Your task to perform on an android device: turn on the 24-hour format for clock Image 0: 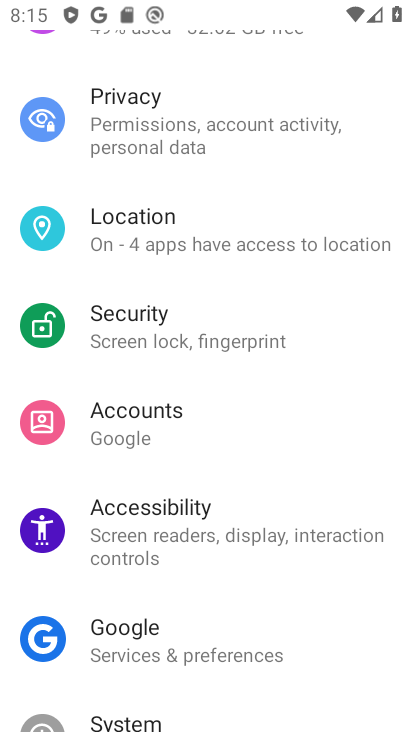
Step 0: press home button
Your task to perform on an android device: turn on the 24-hour format for clock Image 1: 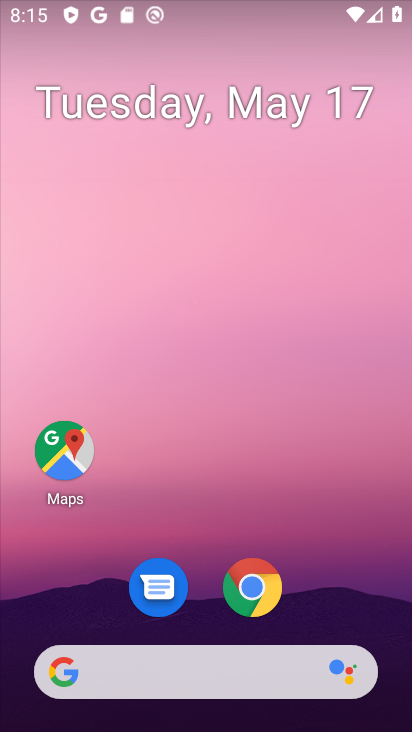
Step 1: drag from (69, 475) to (210, 147)
Your task to perform on an android device: turn on the 24-hour format for clock Image 2: 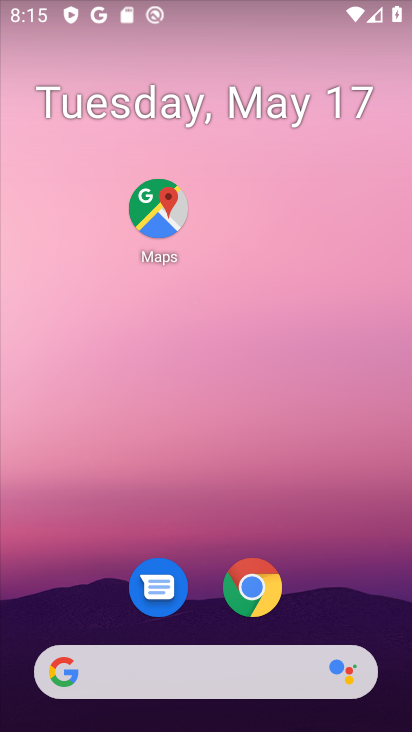
Step 2: drag from (69, 505) to (224, 209)
Your task to perform on an android device: turn on the 24-hour format for clock Image 3: 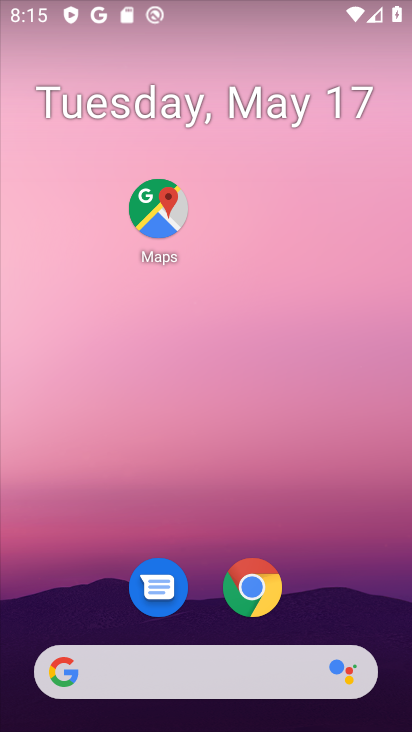
Step 3: drag from (86, 474) to (293, 37)
Your task to perform on an android device: turn on the 24-hour format for clock Image 4: 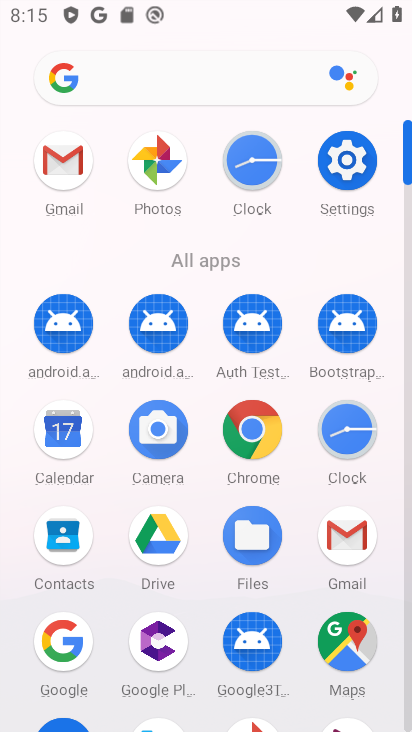
Step 4: click (364, 437)
Your task to perform on an android device: turn on the 24-hour format for clock Image 5: 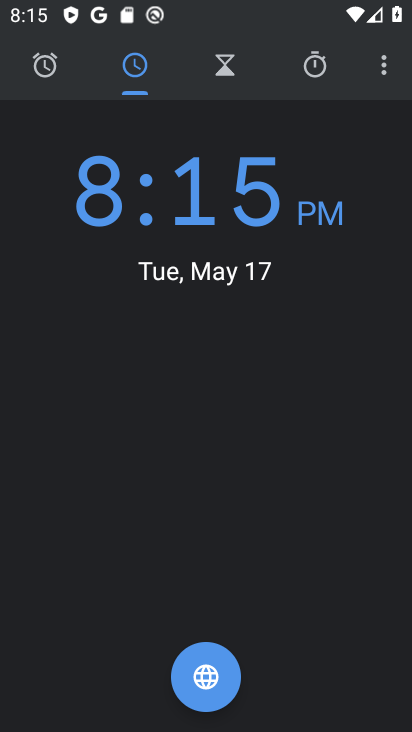
Step 5: click (377, 64)
Your task to perform on an android device: turn on the 24-hour format for clock Image 6: 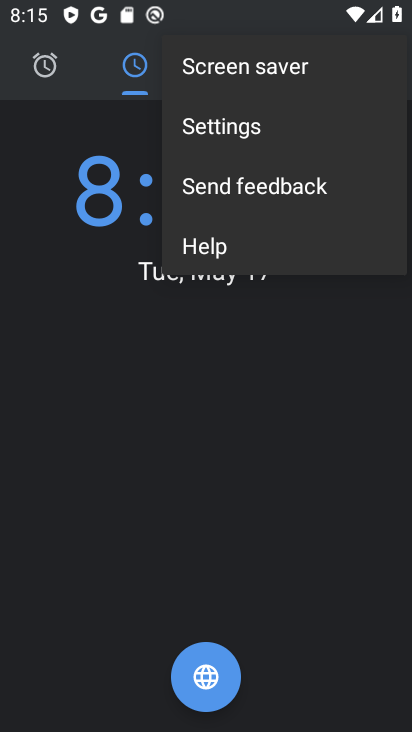
Step 6: click (282, 118)
Your task to perform on an android device: turn on the 24-hour format for clock Image 7: 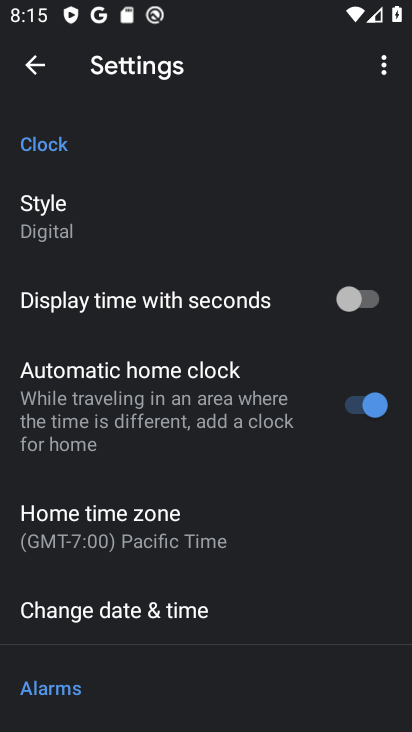
Step 7: drag from (24, 476) to (154, 128)
Your task to perform on an android device: turn on the 24-hour format for clock Image 8: 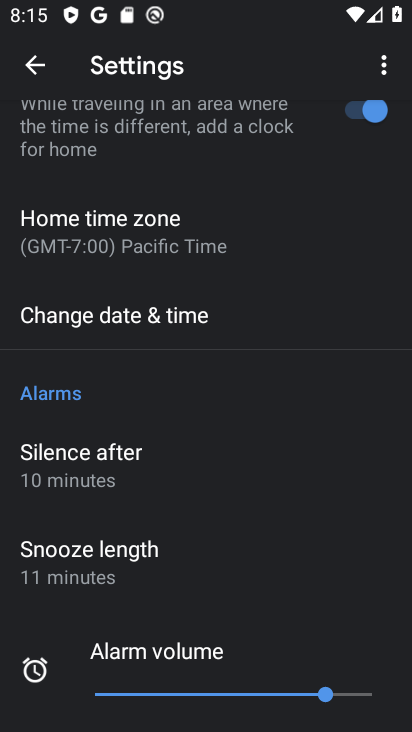
Step 8: click (106, 320)
Your task to perform on an android device: turn on the 24-hour format for clock Image 9: 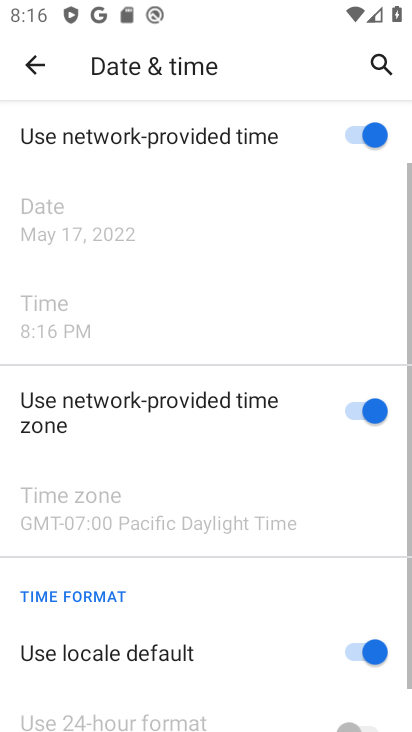
Step 9: drag from (7, 538) to (107, 264)
Your task to perform on an android device: turn on the 24-hour format for clock Image 10: 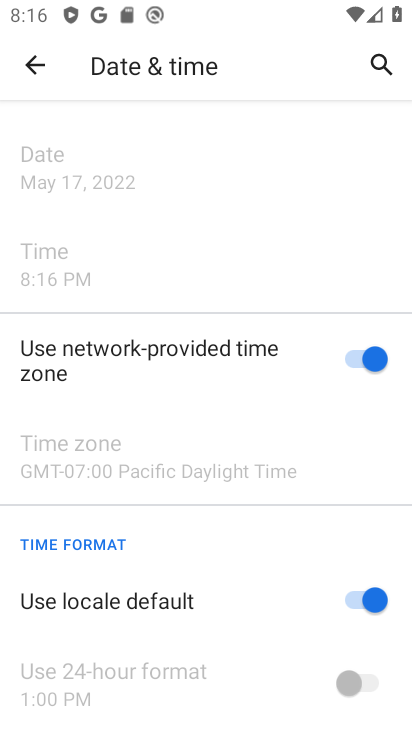
Step 10: drag from (24, 467) to (89, 320)
Your task to perform on an android device: turn on the 24-hour format for clock Image 11: 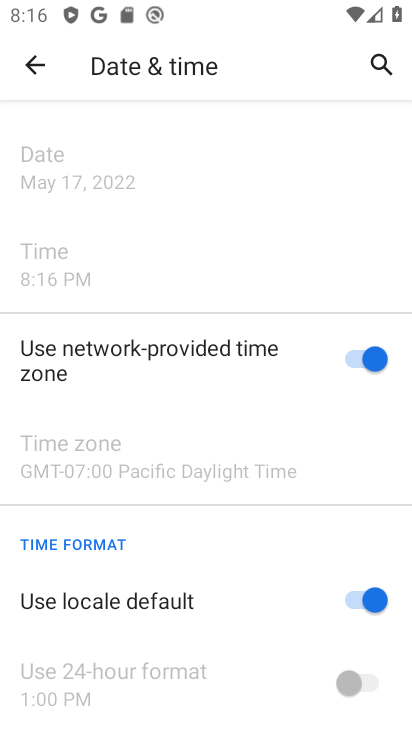
Step 11: click (383, 604)
Your task to perform on an android device: turn on the 24-hour format for clock Image 12: 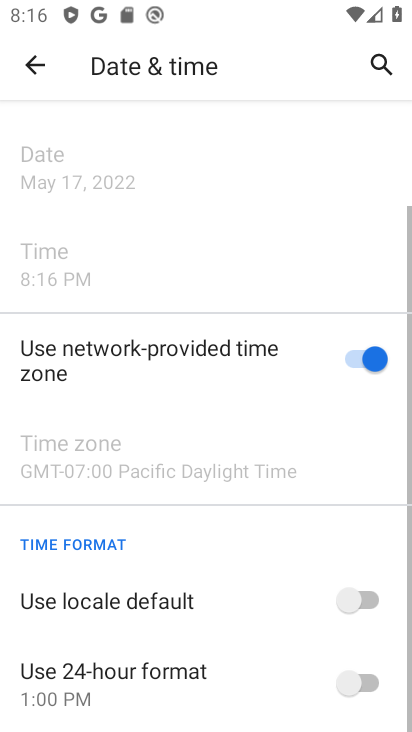
Step 12: click (360, 680)
Your task to perform on an android device: turn on the 24-hour format for clock Image 13: 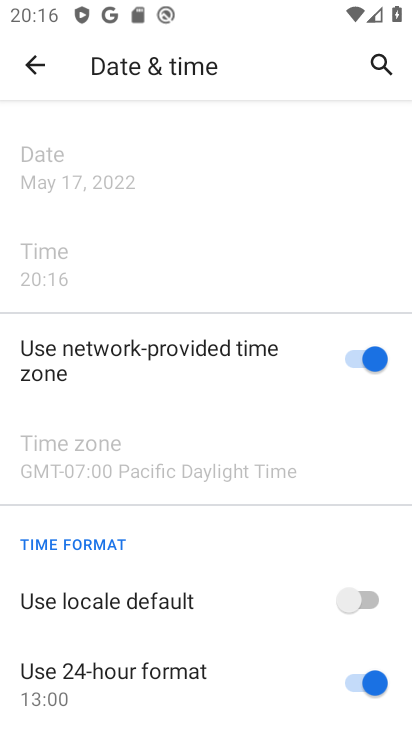
Step 13: task complete